Your task to perform on an android device: turn off smart reply in the gmail app Image 0: 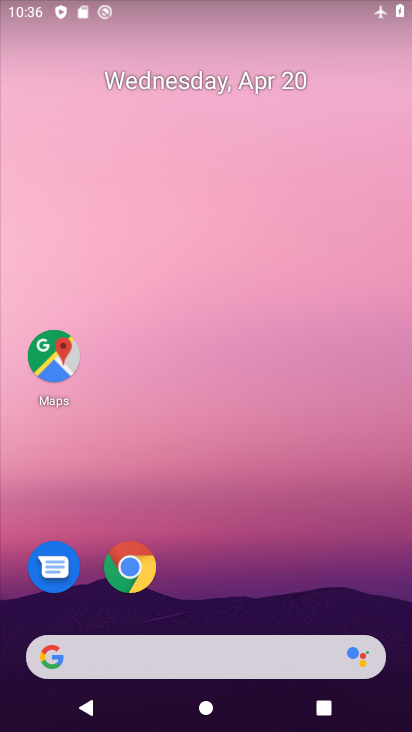
Step 0: drag from (266, 361) to (255, 174)
Your task to perform on an android device: turn off smart reply in the gmail app Image 1: 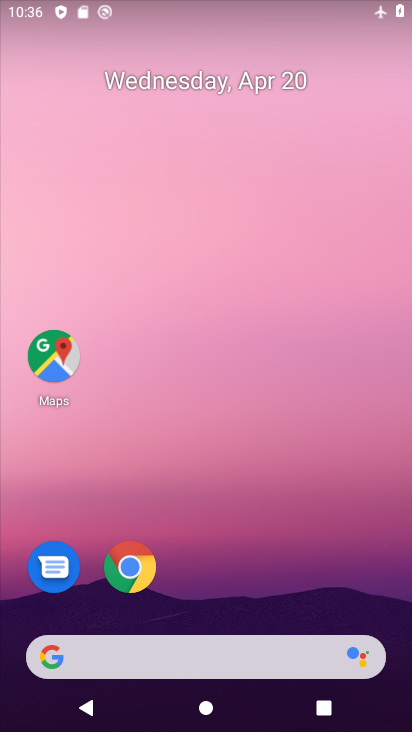
Step 1: drag from (267, 626) to (374, 121)
Your task to perform on an android device: turn off smart reply in the gmail app Image 2: 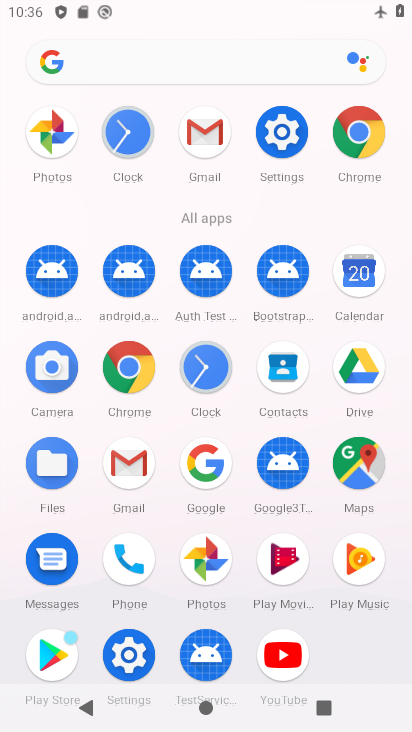
Step 2: click (204, 129)
Your task to perform on an android device: turn off smart reply in the gmail app Image 3: 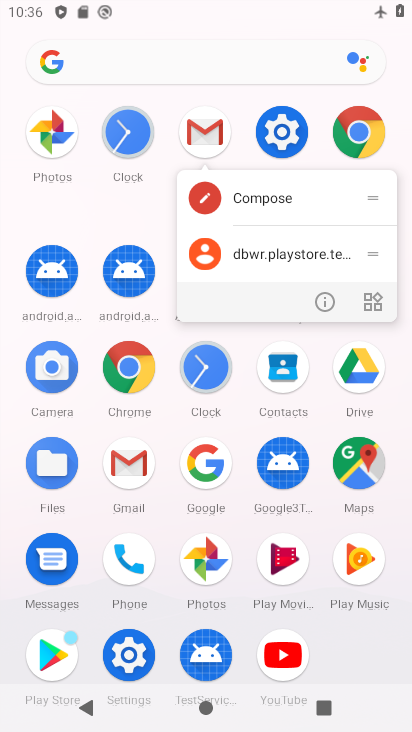
Step 3: click (204, 130)
Your task to perform on an android device: turn off smart reply in the gmail app Image 4: 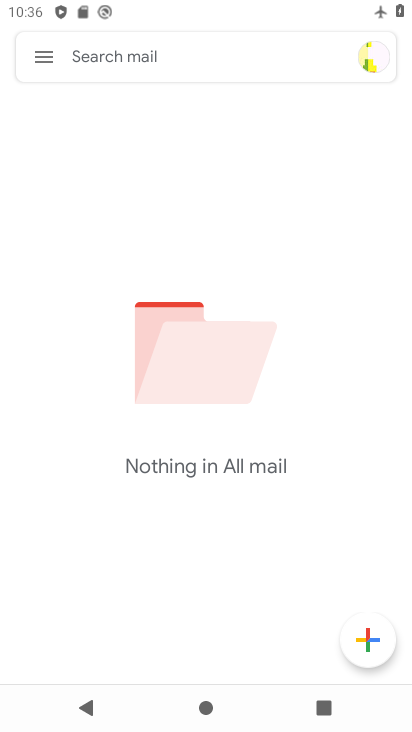
Step 4: click (37, 48)
Your task to perform on an android device: turn off smart reply in the gmail app Image 5: 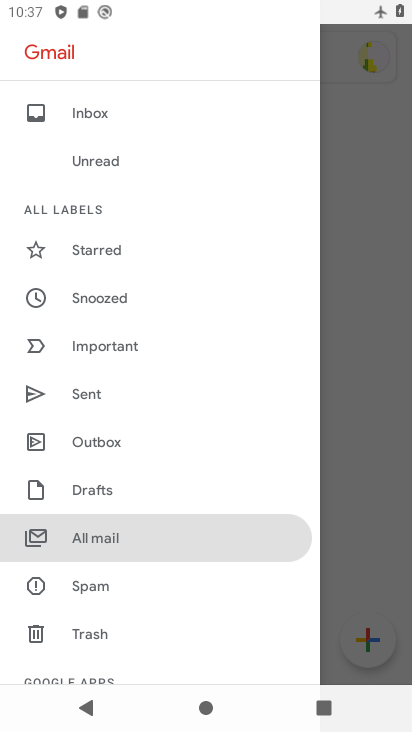
Step 5: drag from (151, 598) to (246, 101)
Your task to perform on an android device: turn off smart reply in the gmail app Image 6: 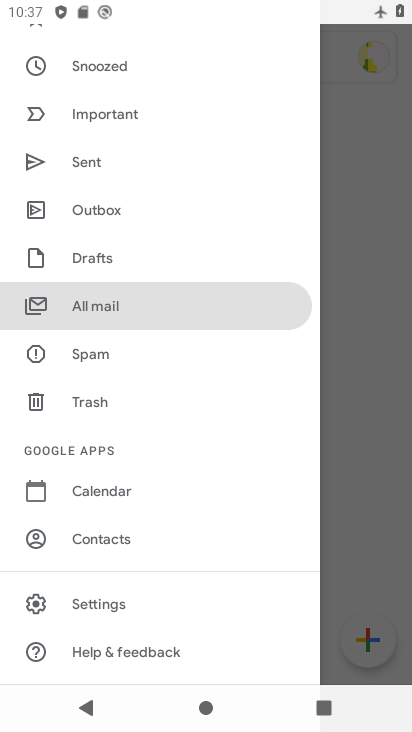
Step 6: click (125, 601)
Your task to perform on an android device: turn off smart reply in the gmail app Image 7: 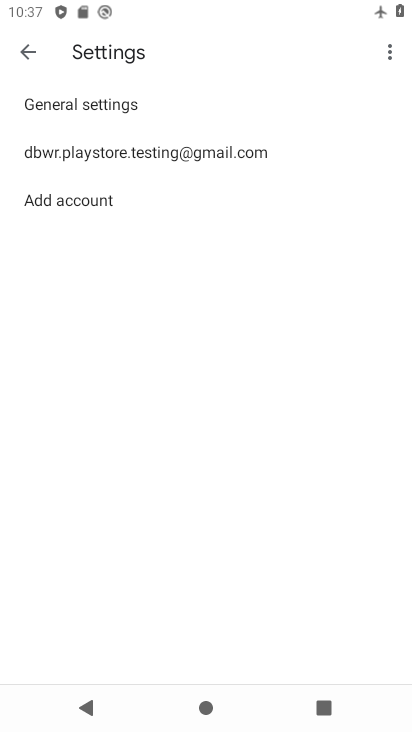
Step 7: click (261, 148)
Your task to perform on an android device: turn off smart reply in the gmail app Image 8: 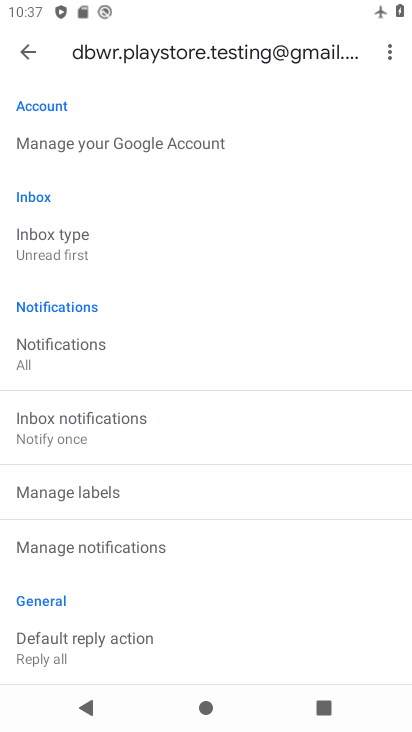
Step 8: drag from (177, 644) to (268, 193)
Your task to perform on an android device: turn off smart reply in the gmail app Image 9: 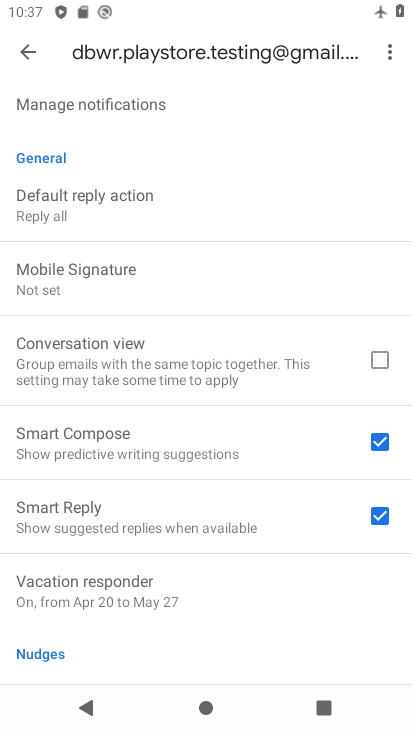
Step 9: click (384, 523)
Your task to perform on an android device: turn off smart reply in the gmail app Image 10: 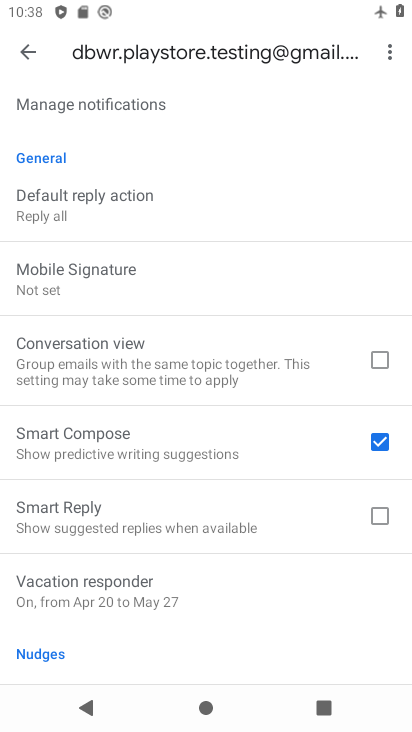
Step 10: task complete